Your task to perform on an android device: set an alarm Image 0: 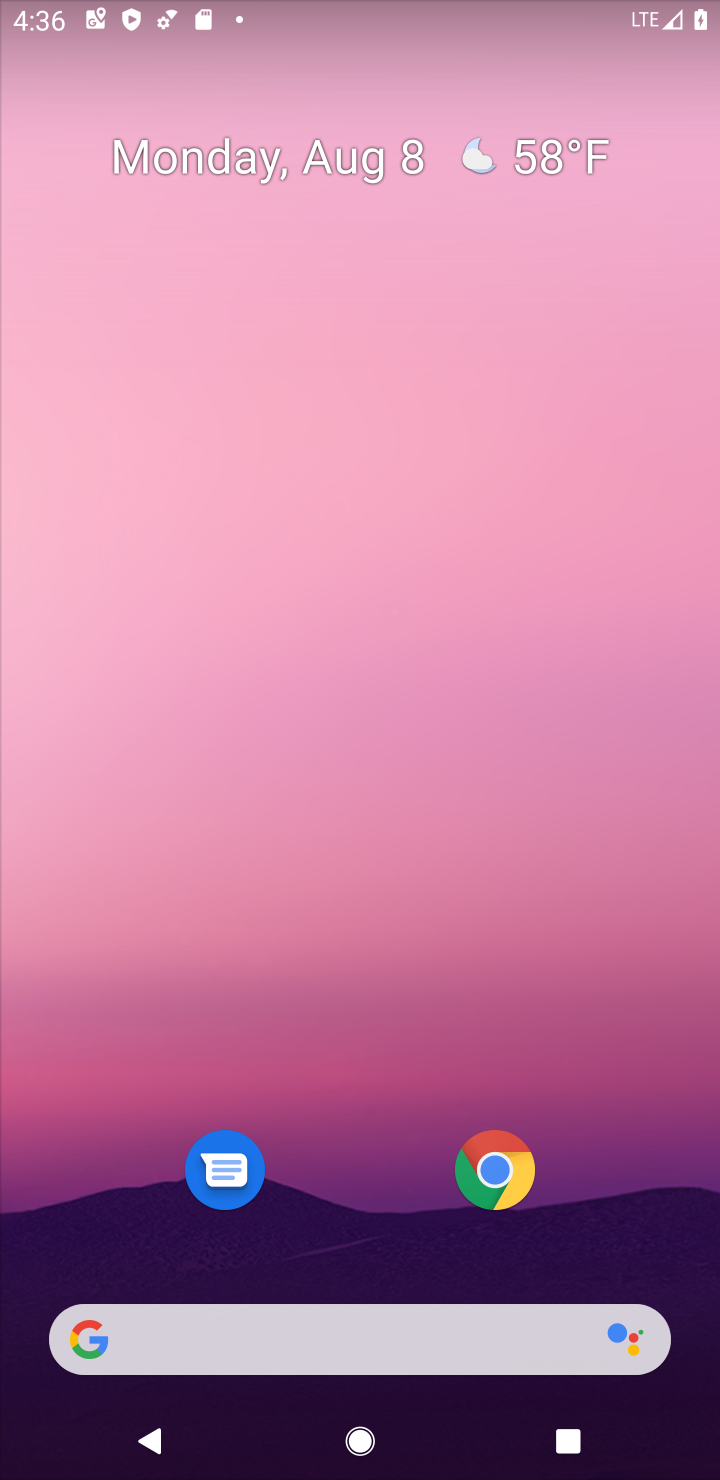
Step 0: drag from (336, 1194) to (340, 264)
Your task to perform on an android device: set an alarm Image 1: 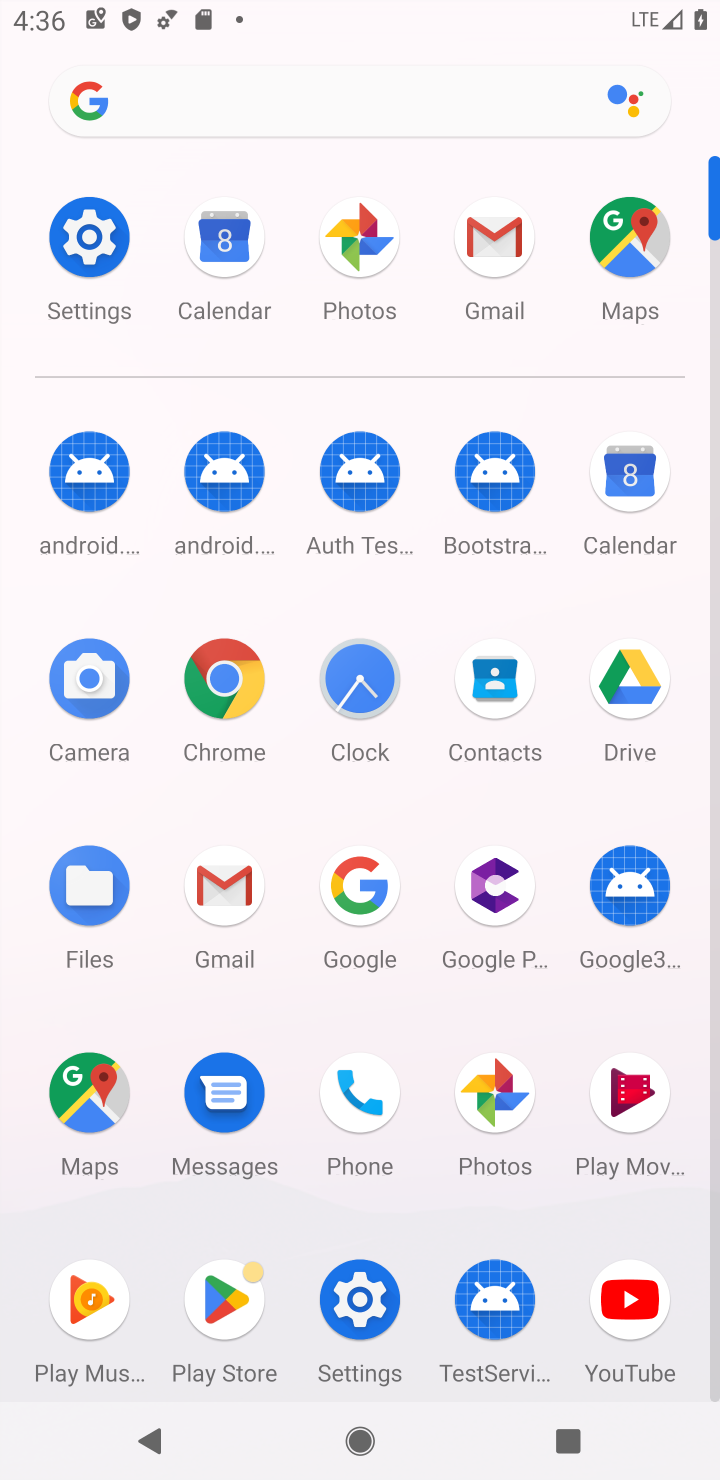
Step 1: click (338, 699)
Your task to perform on an android device: set an alarm Image 2: 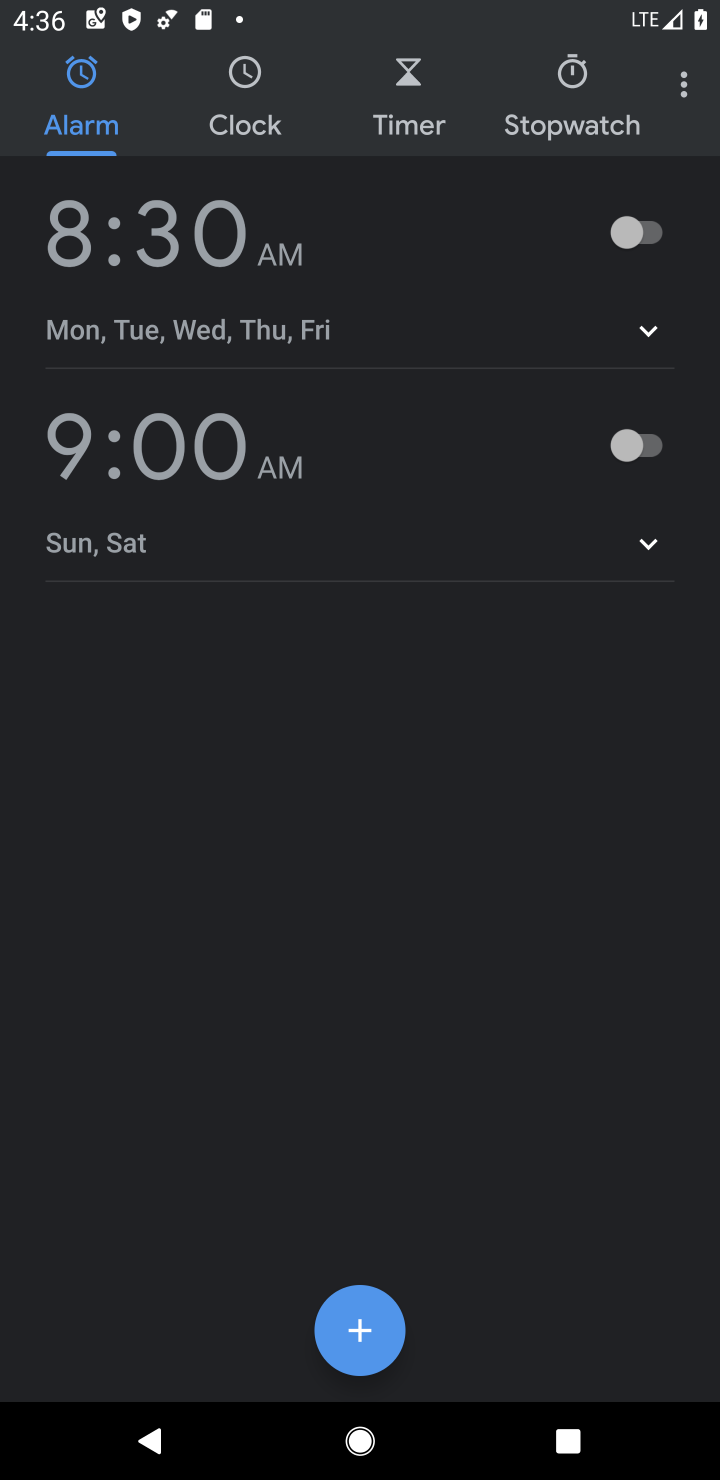
Step 2: click (656, 255)
Your task to perform on an android device: set an alarm Image 3: 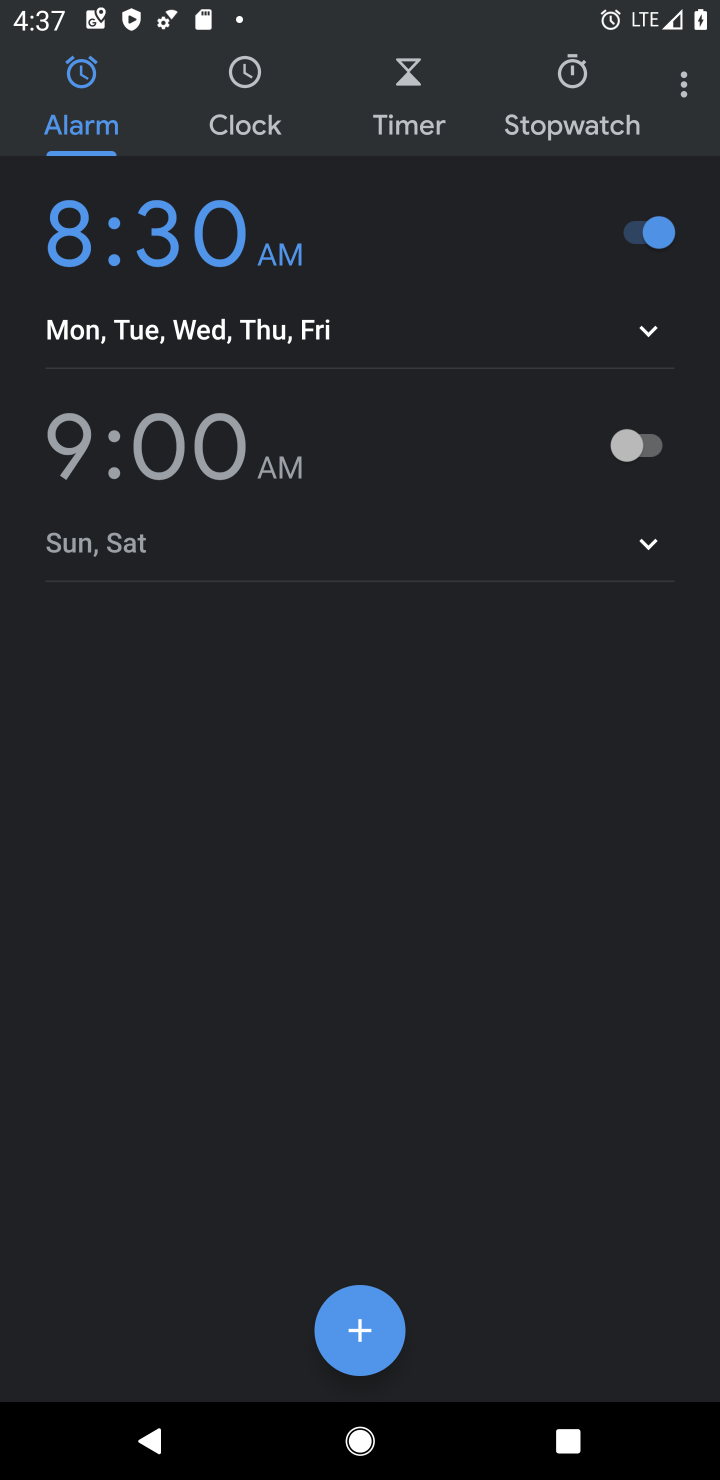
Step 3: task complete